Your task to perform on an android device: toggle notification dots Image 0: 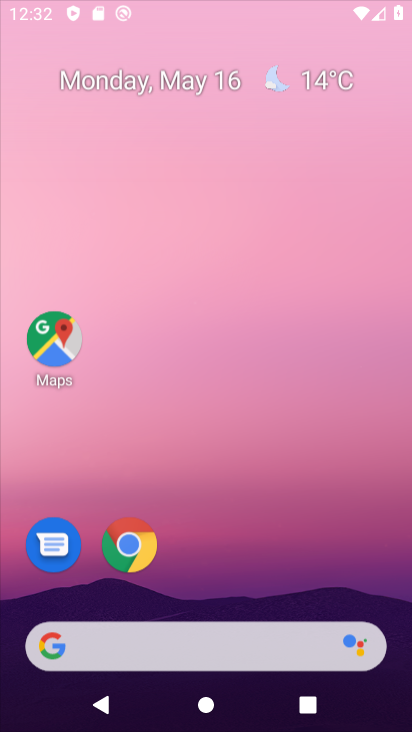
Step 0: press home button
Your task to perform on an android device: toggle notification dots Image 1: 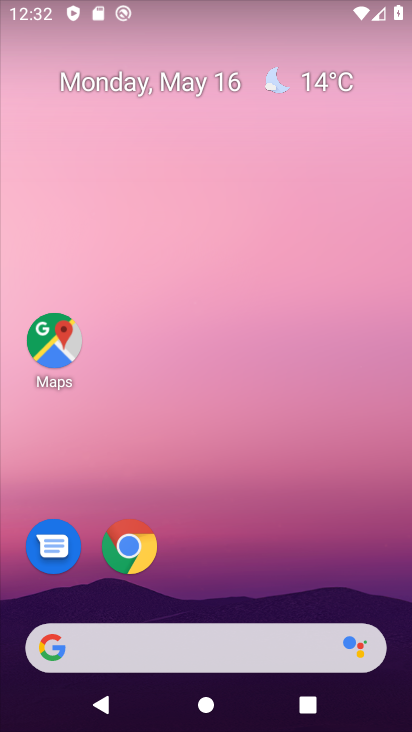
Step 1: drag from (255, 647) to (288, 163)
Your task to perform on an android device: toggle notification dots Image 2: 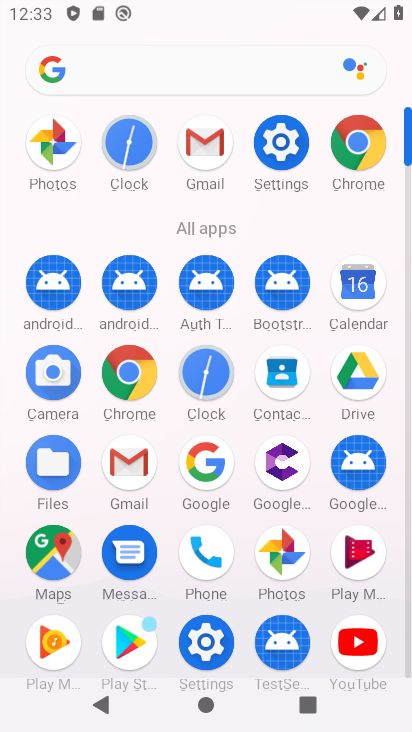
Step 2: click (285, 160)
Your task to perform on an android device: toggle notification dots Image 3: 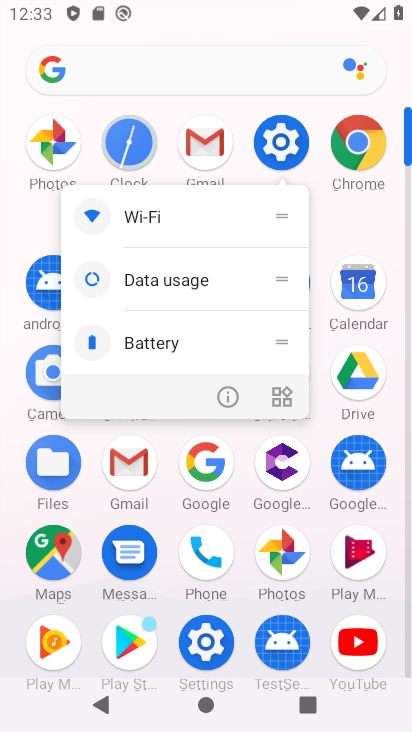
Step 3: click (288, 143)
Your task to perform on an android device: toggle notification dots Image 4: 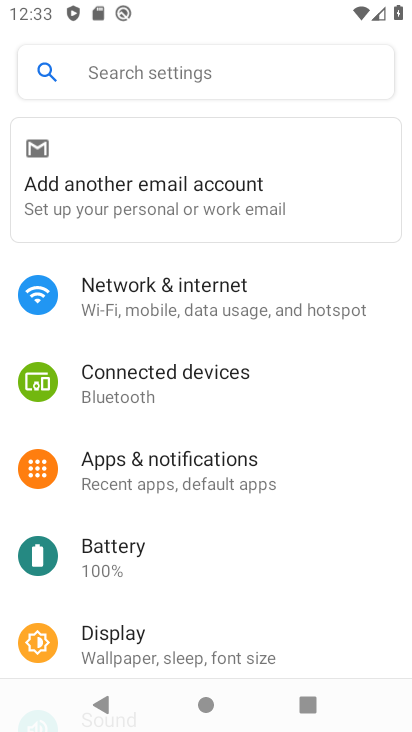
Step 4: click (179, 79)
Your task to perform on an android device: toggle notification dots Image 5: 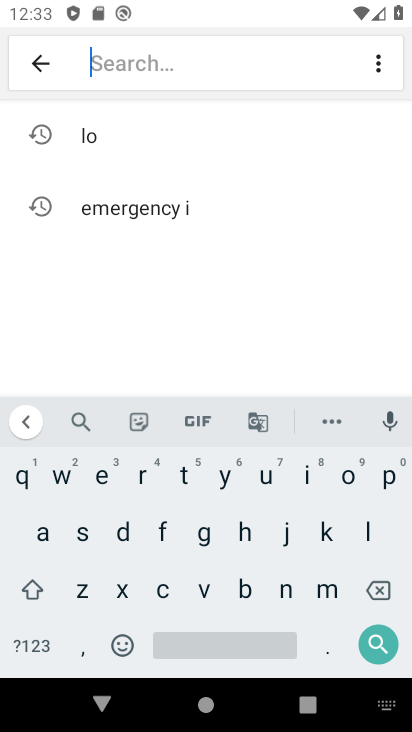
Step 5: click (127, 537)
Your task to perform on an android device: toggle notification dots Image 6: 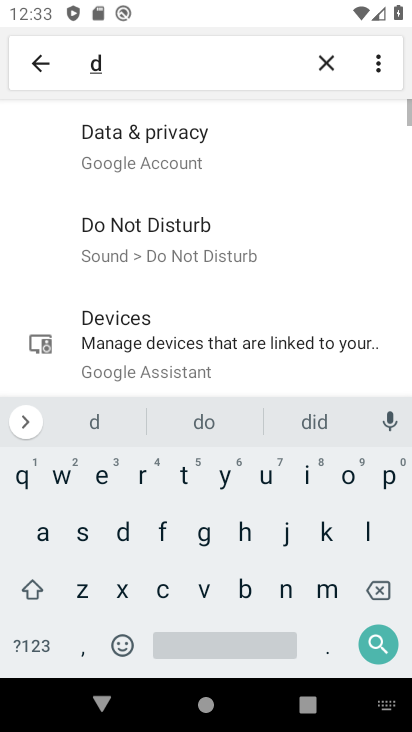
Step 6: click (349, 478)
Your task to perform on an android device: toggle notification dots Image 7: 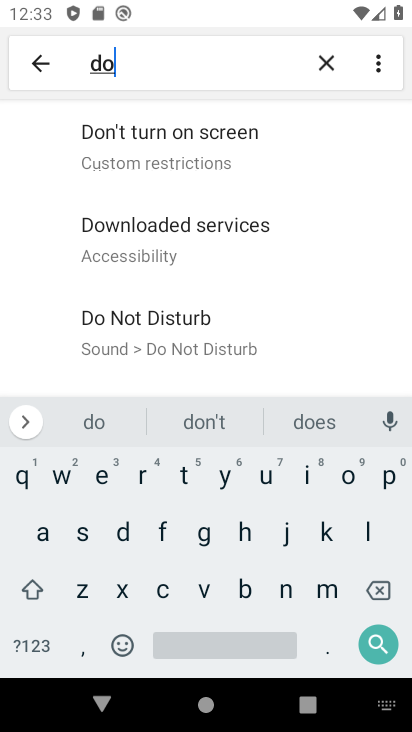
Step 7: click (170, 476)
Your task to perform on an android device: toggle notification dots Image 8: 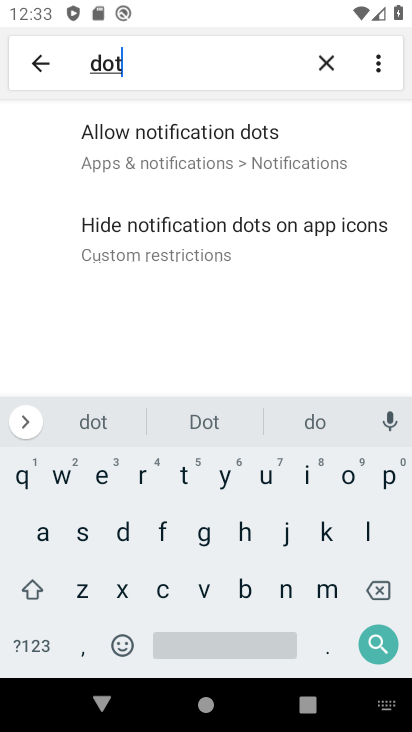
Step 8: click (208, 157)
Your task to perform on an android device: toggle notification dots Image 9: 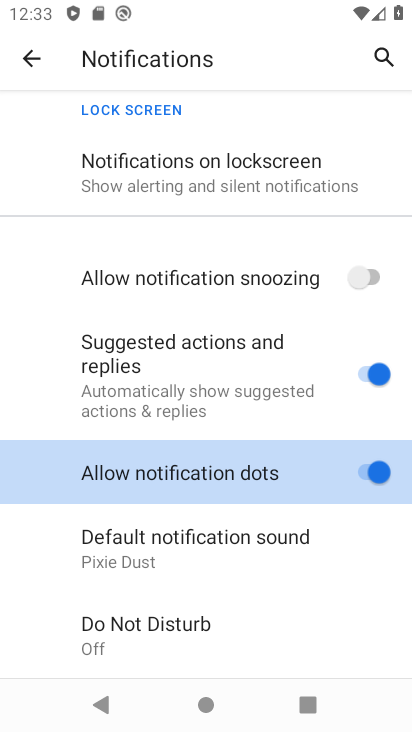
Step 9: click (184, 468)
Your task to perform on an android device: toggle notification dots Image 10: 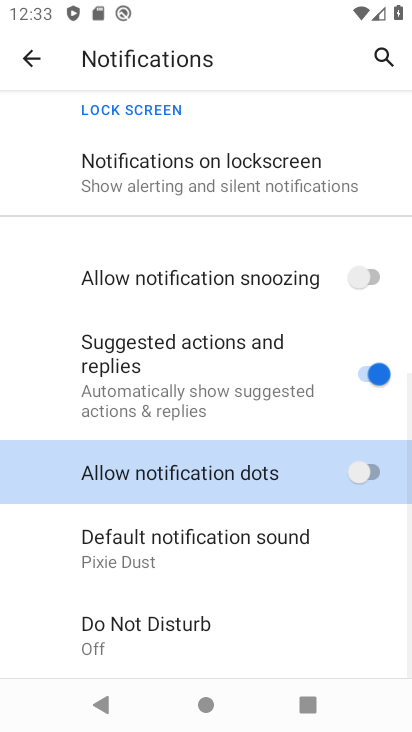
Step 10: click (208, 485)
Your task to perform on an android device: toggle notification dots Image 11: 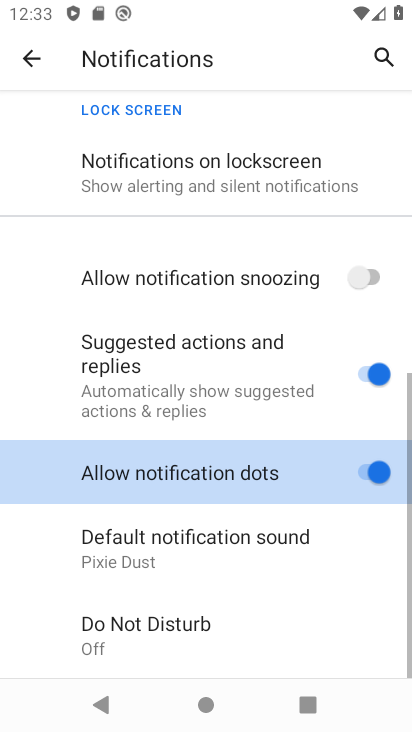
Step 11: task complete